Your task to perform on an android device: What's the latest news in tech? Image 0: 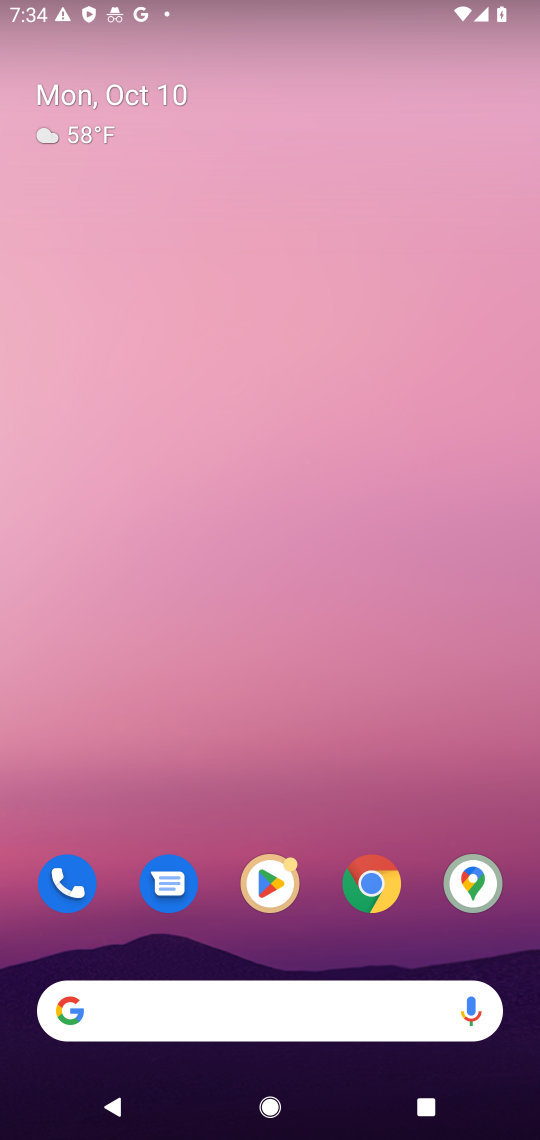
Step 0: drag from (252, 1011) to (386, 132)
Your task to perform on an android device: What's the latest news in tech? Image 1: 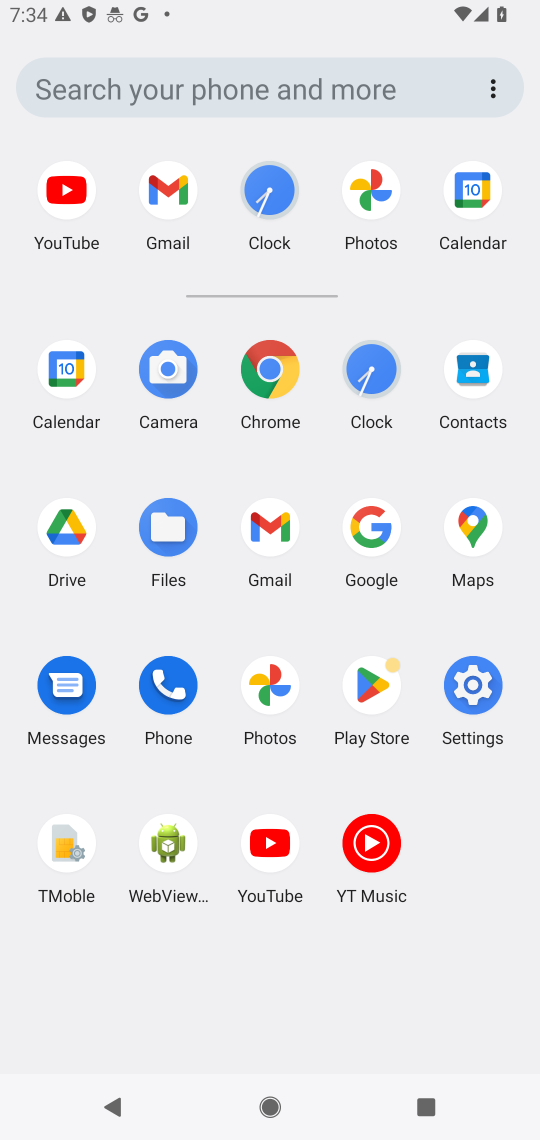
Step 1: click (384, 548)
Your task to perform on an android device: What's the latest news in tech? Image 2: 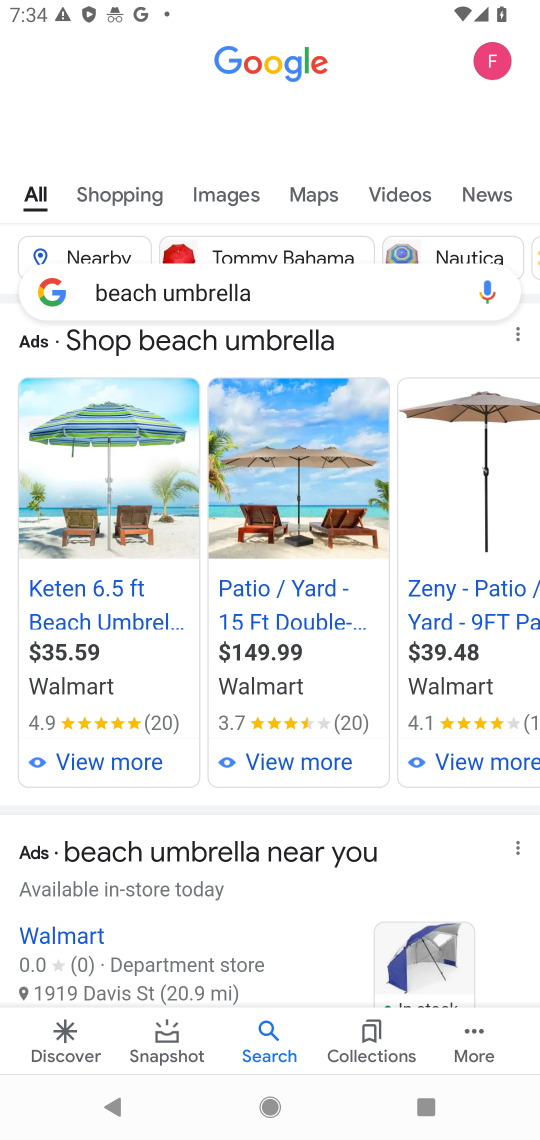
Step 2: click (374, 286)
Your task to perform on an android device: What's the latest news in tech? Image 3: 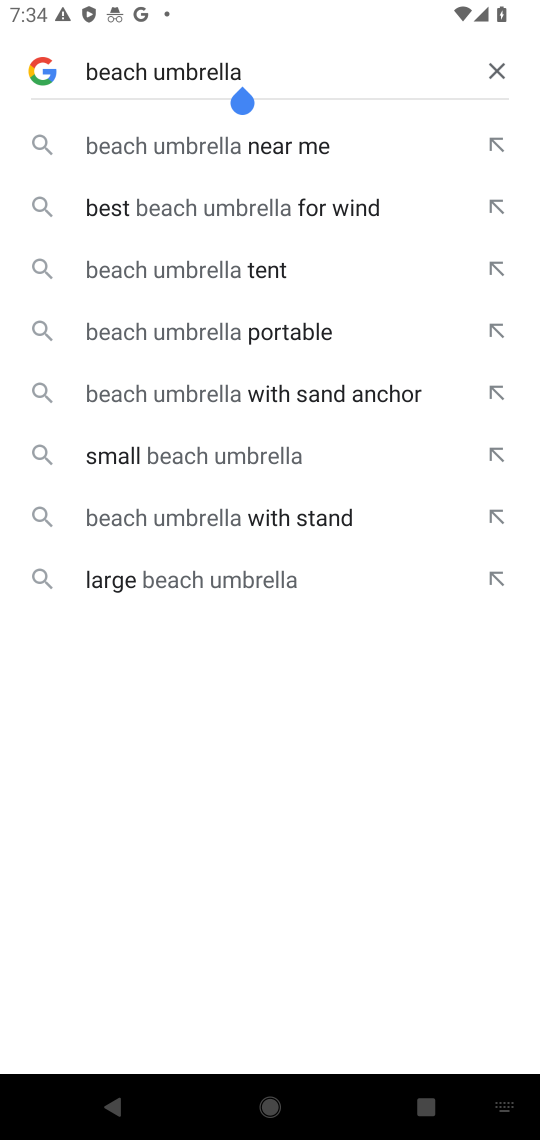
Step 3: click (499, 66)
Your task to perform on an android device: What's the latest news in tech? Image 4: 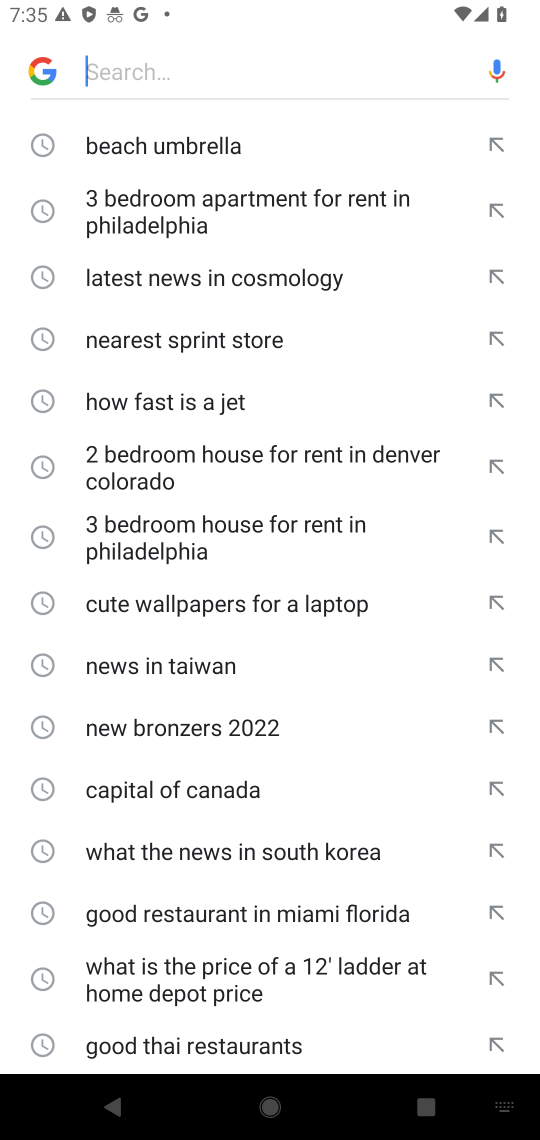
Step 4: type "latest news in tech"
Your task to perform on an android device: What's the latest news in tech? Image 5: 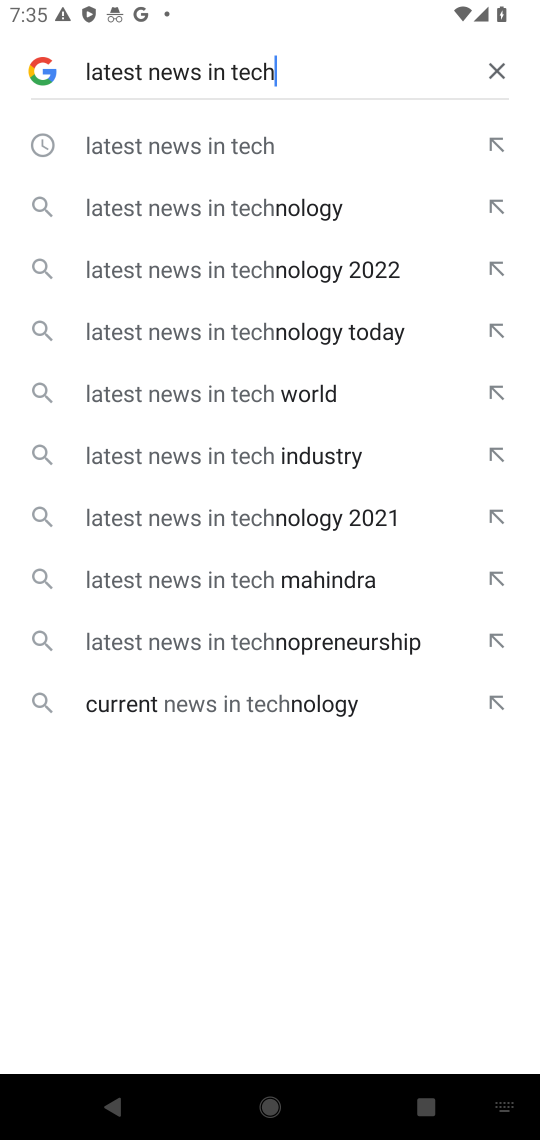
Step 5: click (303, 146)
Your task to perform on an android device: What's the latest news in tech? Image 6: 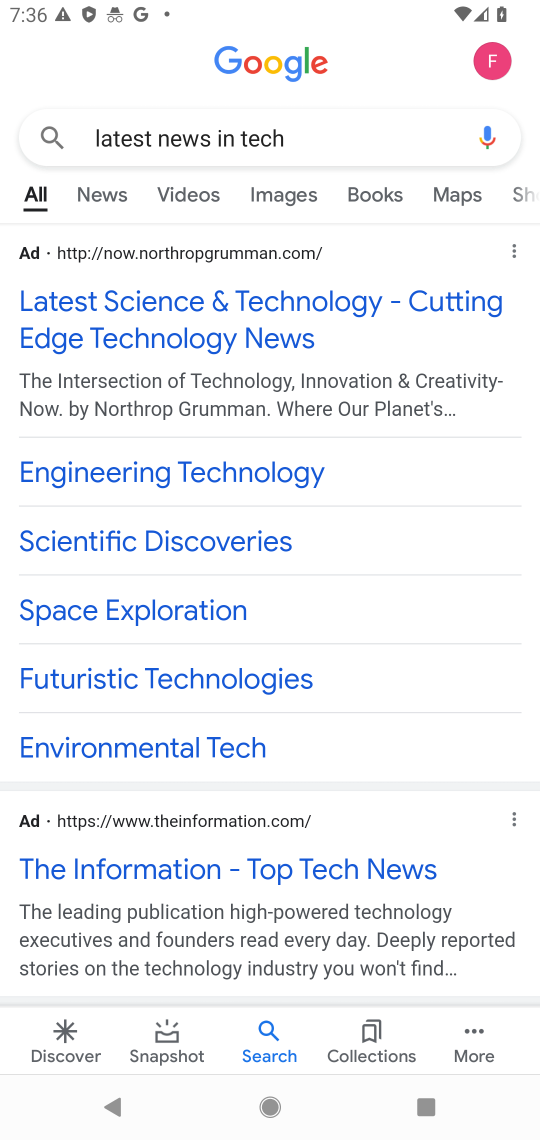
Step 6: click (122, 188)
Your task to perform on an android device: What's the latest news in tech? Image 7: 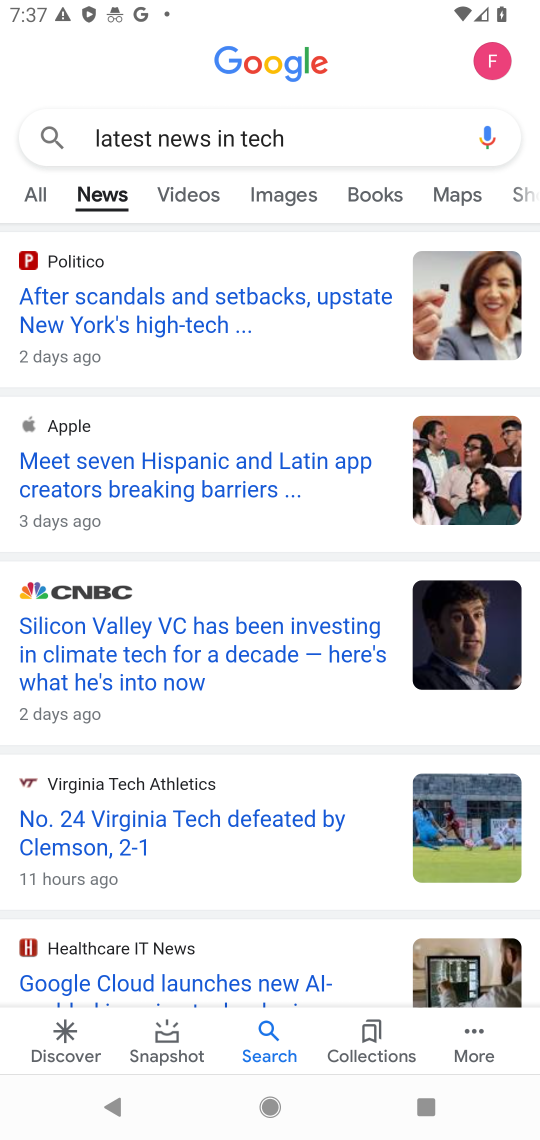
Step 7: task complete